Your task to perform on an android device: Is it going to rain today? Image 0: 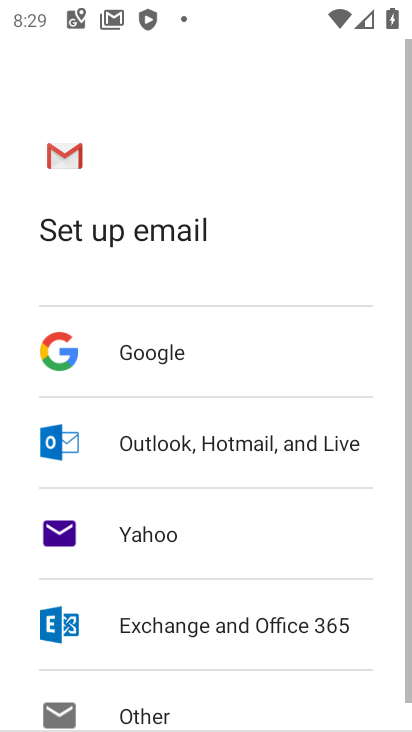
Step 0: press home button
Your task to perform on an android device: Is it going to rain today? Image 1: 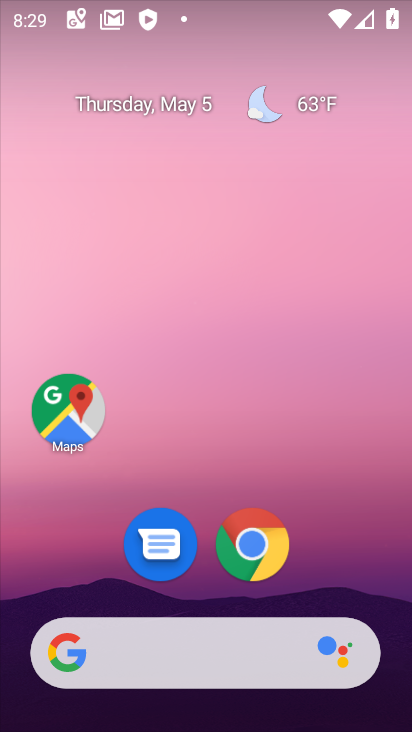
Step 1: click (308, 106)
Your task to perform on an android device: Is it going to rain today? Image 2: 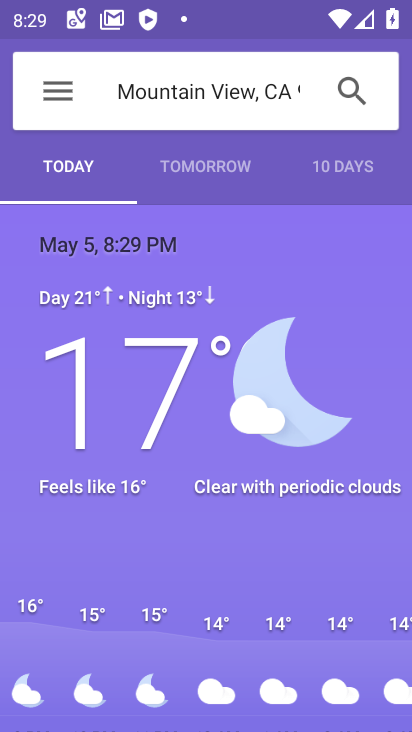
Step 2: task complete